Your task to perform on an android device: change the clock display to analog Image 0: 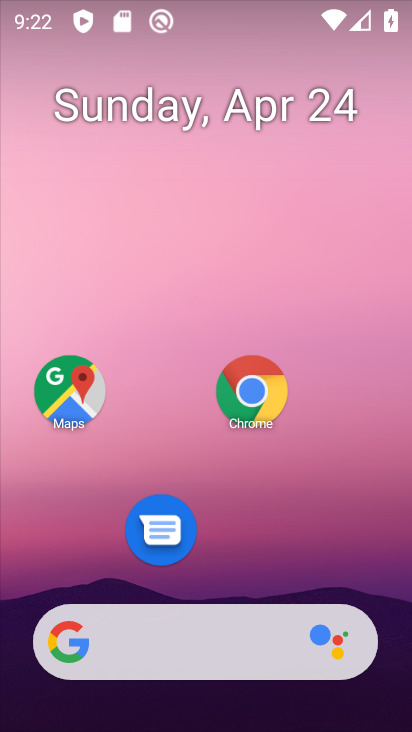
Step 0: drag from (212, 584) to (217, 44)
Your task to perform on an android device: change the clock display to analog Image 1: 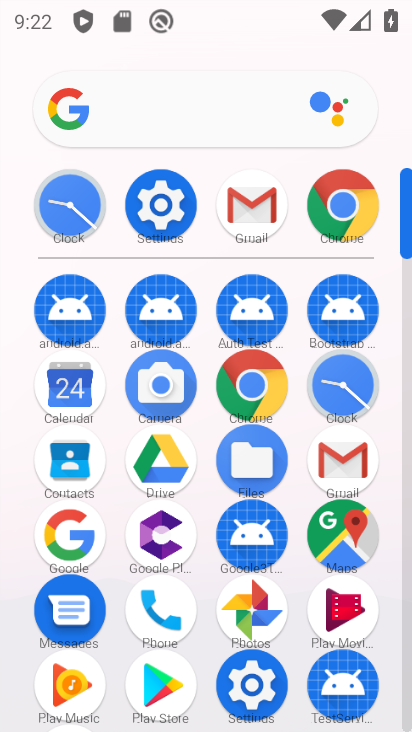
Step 1: click (323, 367)
Your task to perform on an android device: change the clock display to analog Image 2: 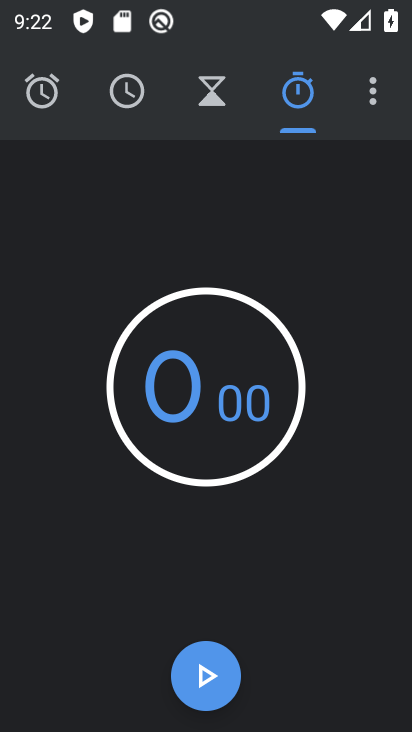
Step 2: click (360, 94)
Your task to perform on an android device: change the clock display to analog Image 3: 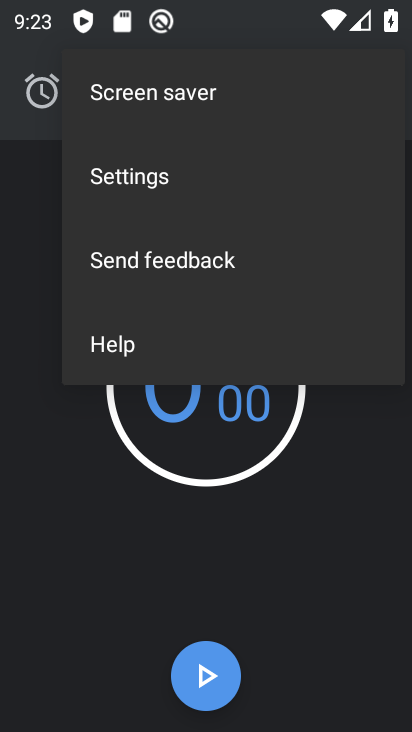
Step 3: click (151, 185)
Your task to perform on an android device: change the clock display to analog Image 4: 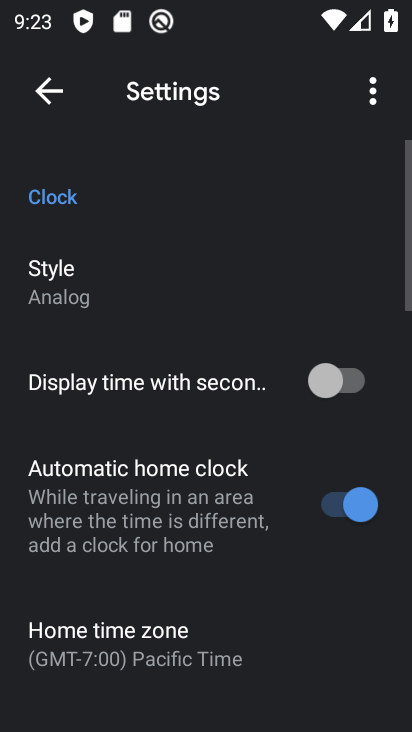
Step 4: click (105, 284)
Your task to perform on an android device: change the clock display to analog Image 5: 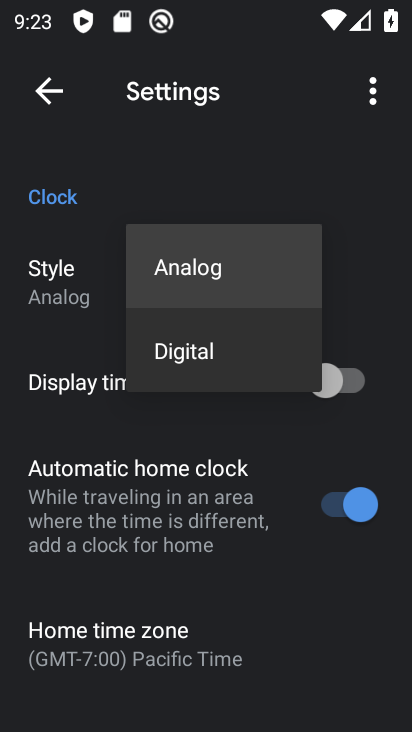
Step 5: task complete